Your task to perform on an android device: Open battery settings Image 0: 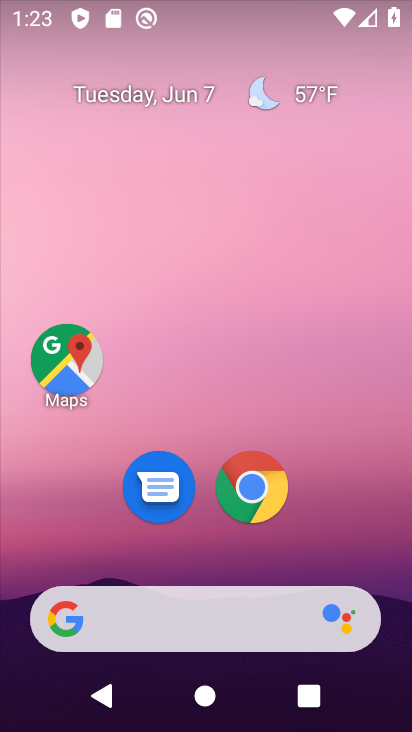
Step 0: drag from (318, 554) to (181, 186)
Your task to perform on an android device: Open battery settings Image 1: 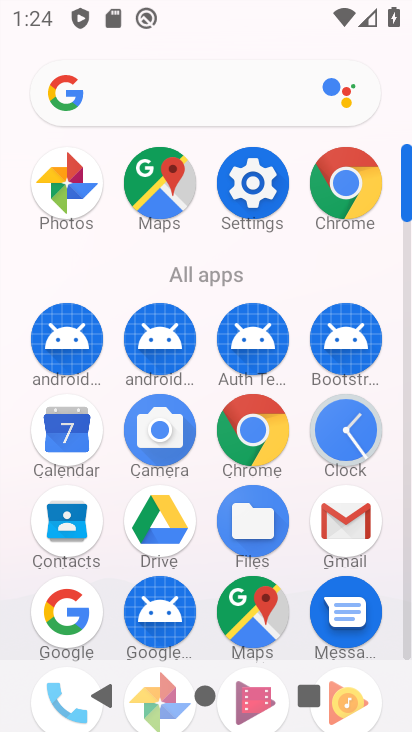
Step 1: click (250, 182)
Your task to perform on an android device: Open battery settings Image 2: 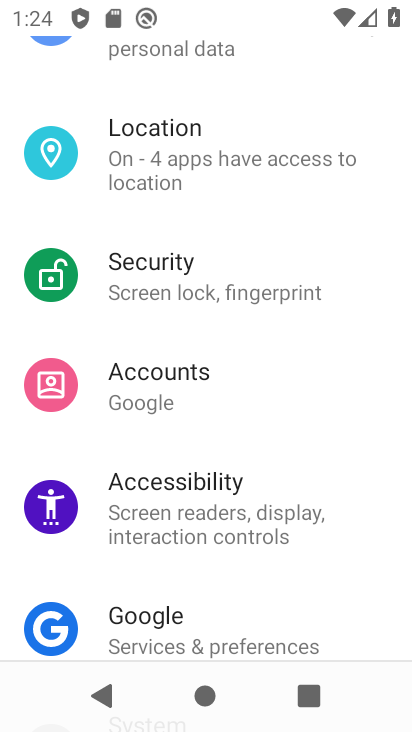
Step 2: drag from (214, 412) to (221, 605)
Your task to perform on an android device: Open battery settings Image 3: 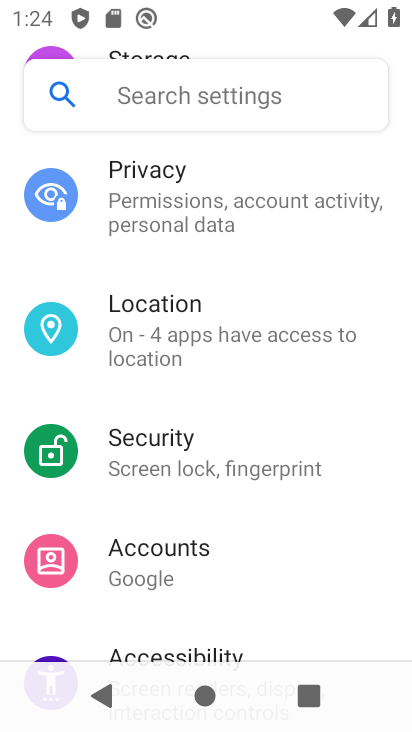
Step 3: drag from (225, 406) to (211, 605)
Your task to perform on an android device: Open battery settings Image 4: 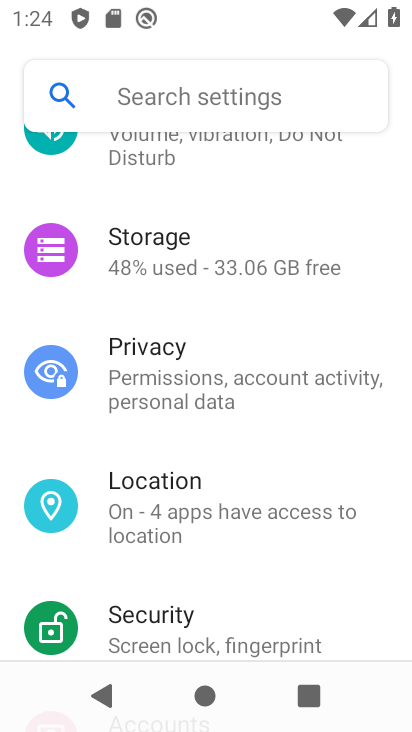
Step 4: drag from (233, 442) to (254, 560)
Your task to perform on an android device: Open battery settings Image 5: 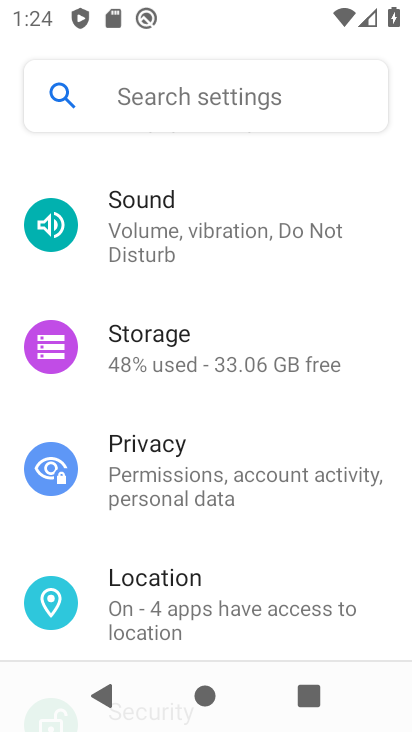
Step 5: drag from (227, 402) to (261, 581)
Your task to perform on an android device: Open battery settings Image 6: 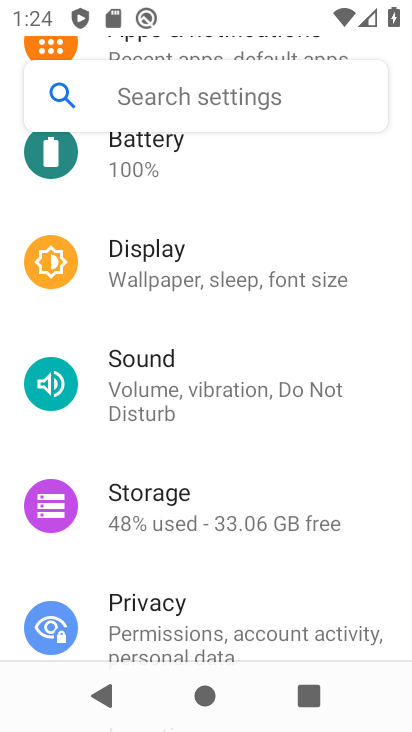
Step 6: drag from (237, 426) to (272, 512)
Your task to perform on an android device: Open battery settings Image 7: 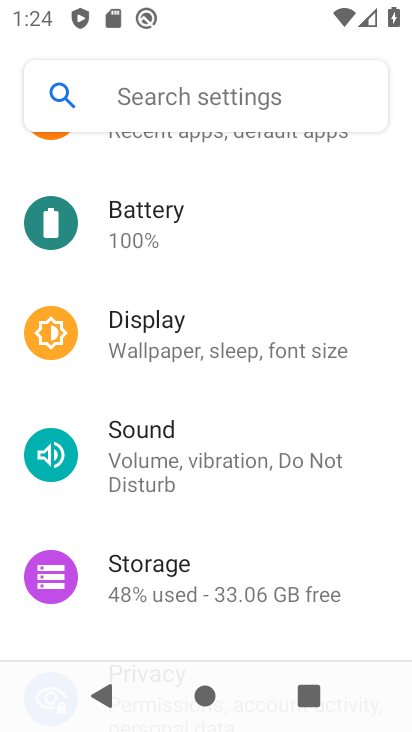
Step 7: click (157, 208)
Your task to perform on an android device: Open battery settings Image 8: 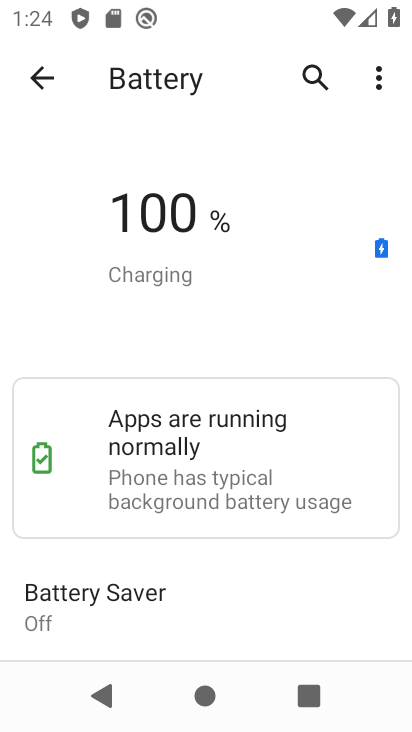
Step 8: task complete